Your task to perform on an android device: Do I have any events tomorrow? Image 0: 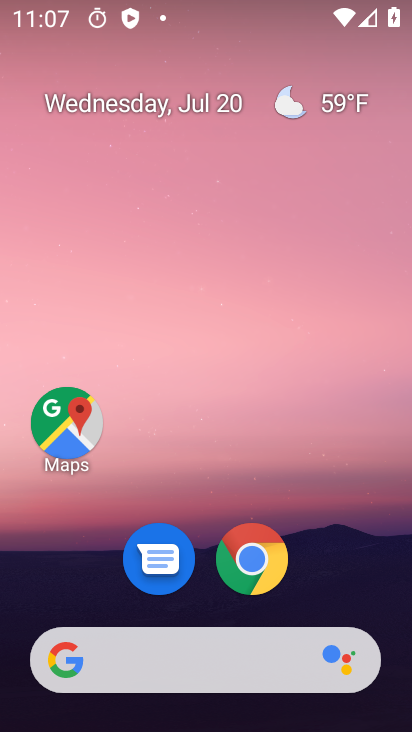
Step 0: drag from (159, 605) to (253, 0)
Your task to perform on an android device: Do I have any events tomorrow? Image 1: 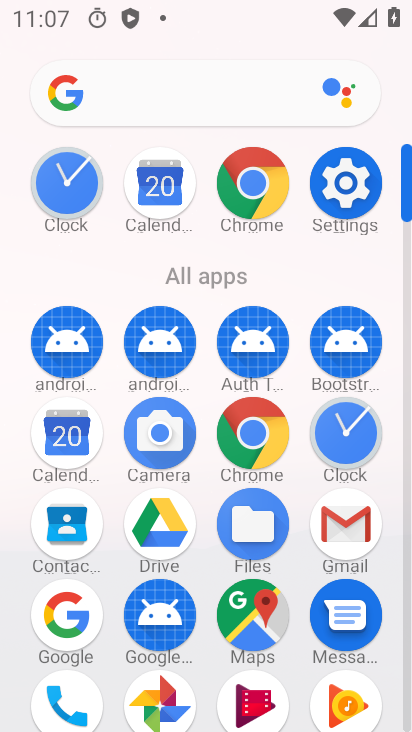
Step 1: click (70, 444)
Your task to perform on an android device: Do I have any events tomorrow? Image 2: 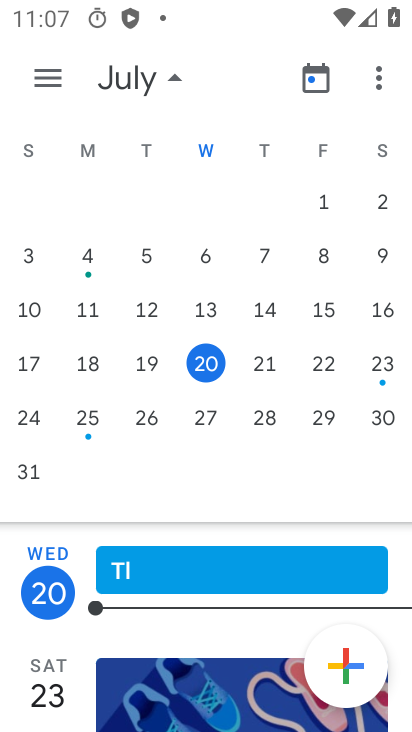
Step 2: drag from (391, 365) to (9, 330)
Your task to perform on an android device: Do I have any events tomorrow? Image 3: 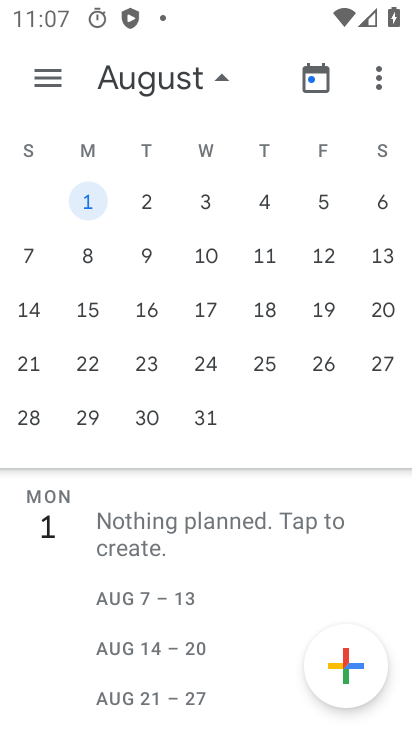
Step 3: drag from (63, 309) to (411, 310)
Your task to perform on an android device: Do I have any events tomorrow? Image 4: 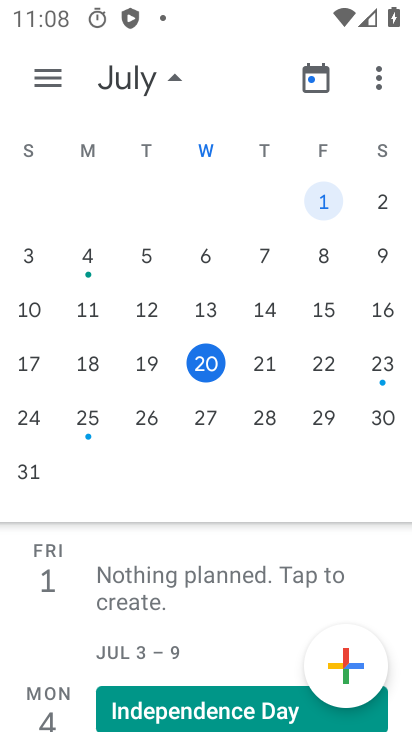
Step 4: click (267, 368)
Your task to perform on an android device: Do I have any events tomorrow? Image 5: 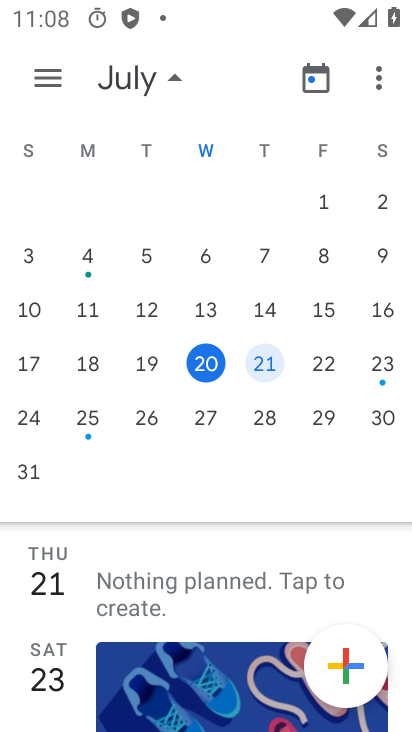
Step 5: task complete